Your task to perform on an android device: Open calendar and show me the third week of next month Image 0: 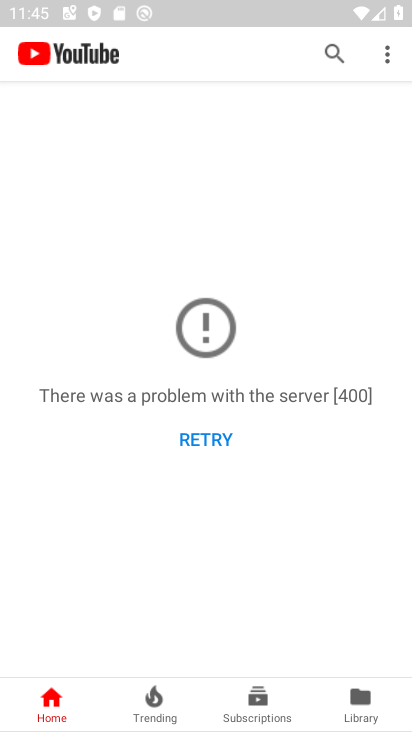
Step 0: press home button
Your task to perform on an android device: Open calendar and show me the third week of next month Image 1: 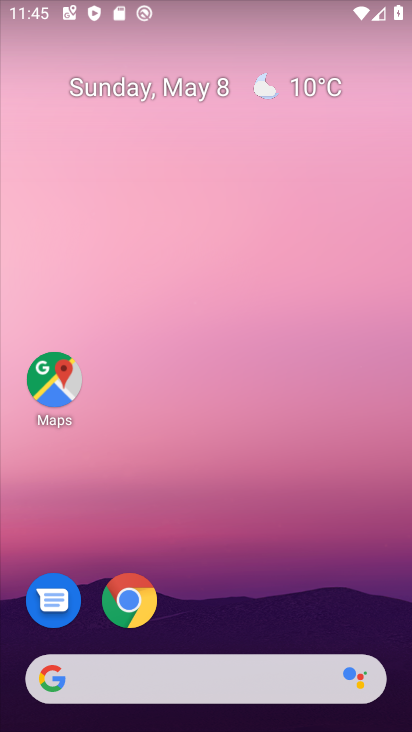
Step 1: drag from (259, 337) to (264, 124)
Your task to perform on an android device: Open calendar and show me the third week of next month Image 2: 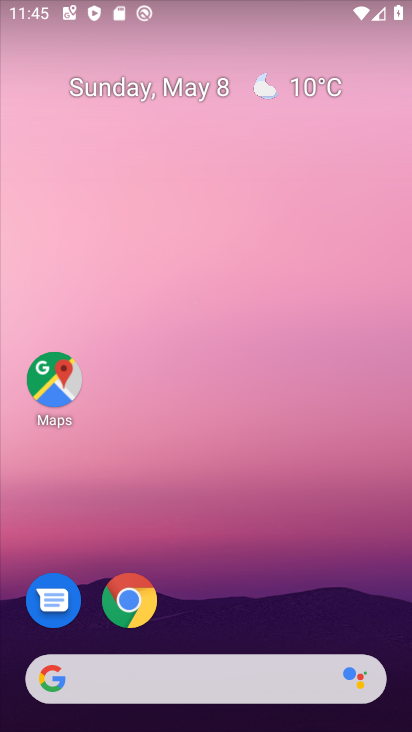
Step 2: drag from (179, 590) to (183, 128)
Your task to perform on an android device: Open calendar and show me the third week of next month Image 3: 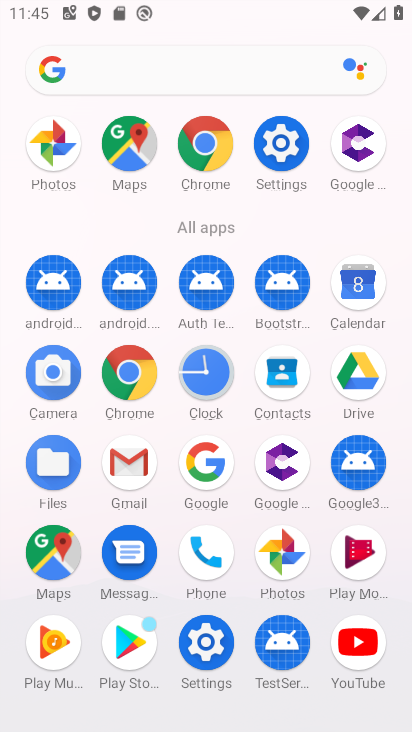
Step 3: click (354, 283)
Your task to perform on an android device: Open calendar and show me the third week of next month Image 4: 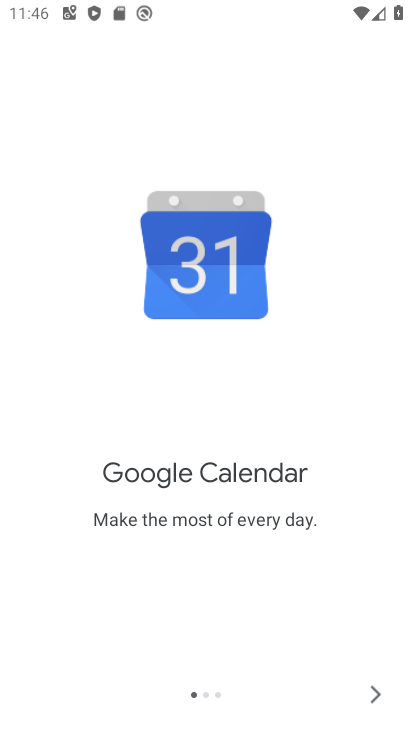
Step 4: click (382, 695)
Your task to perform on an android device: Open calendar and show me the third week of next month Image 5: 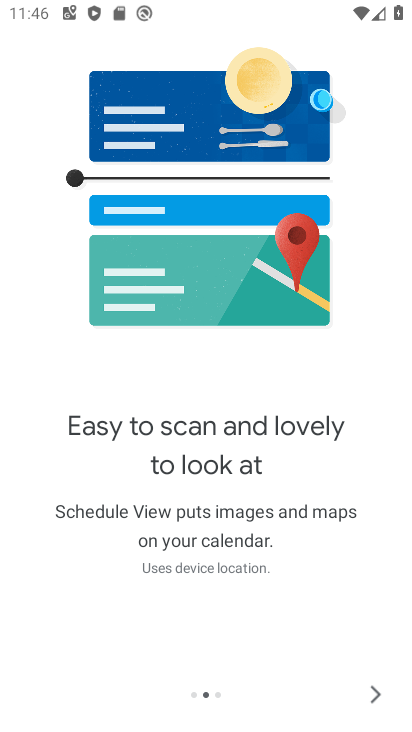
Step 5: click (382, 695)
Your task to perform on an android device: Open calendar and show me the third week of next month Image 6: 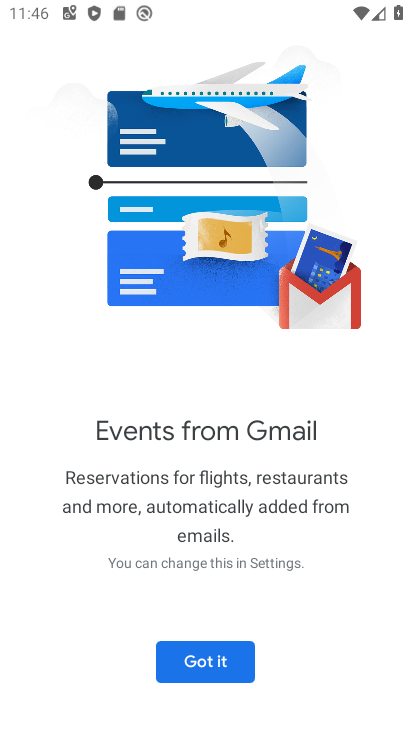
Step 6: click (191, 664)
Your task to perform on an android device: Open calendar and show me the third week of next month Image 7: 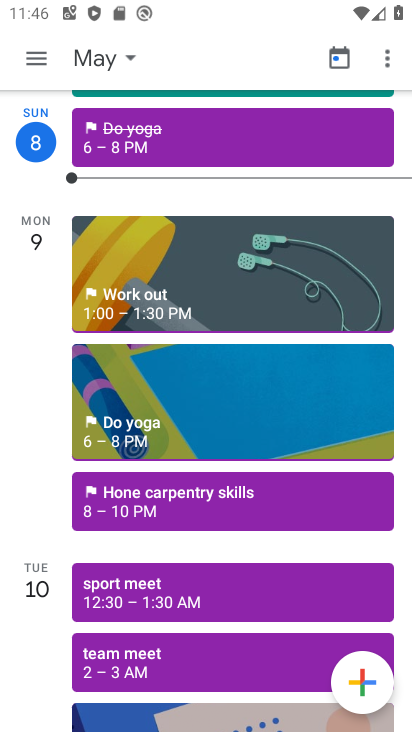
Step 7: click (118, 58)
Your task to perform on an android device: Open calendar and show me the third week of next month Image 8: 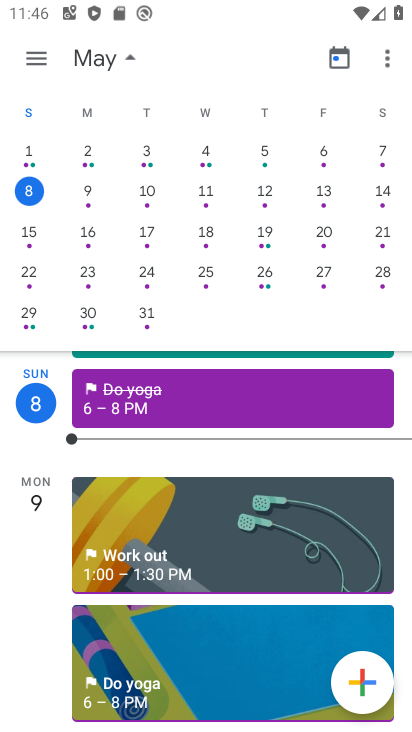
Step 8: drag from (381, 222) to (119, 138)
Your task to perform on an android device: Open calendar and show me the third week of next month Image 9: 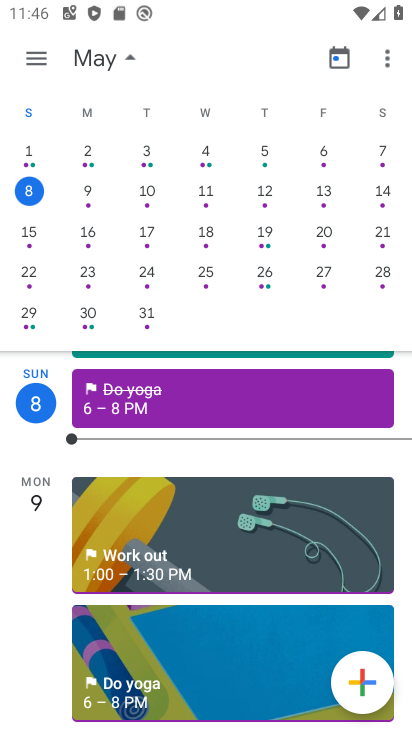
Step 9: click (272, 230)
Your task to perform on an android device: Open calendar and show me the third week of next month Image 10: 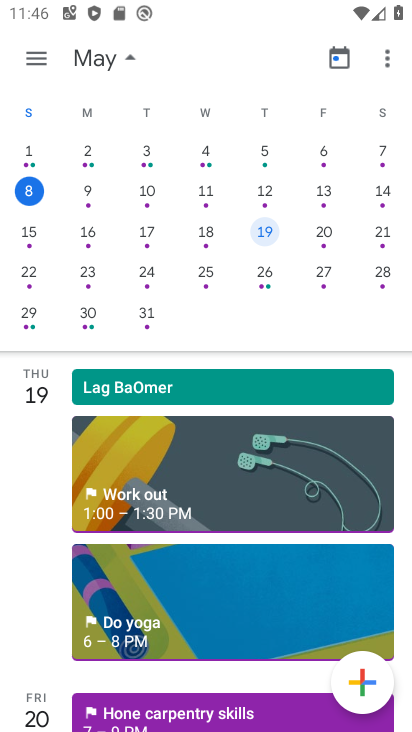
Step 10: click (29, 65)
Your task to perform on an android device: Open calendar and show me the third week of next month Image 11: 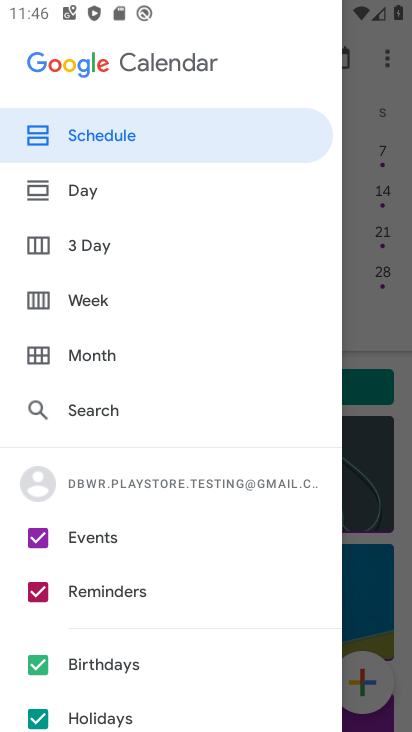
Step 11: click (99, 295)
Your task to perform on an android device: Open calendar and show me the third week of next month Image 12: 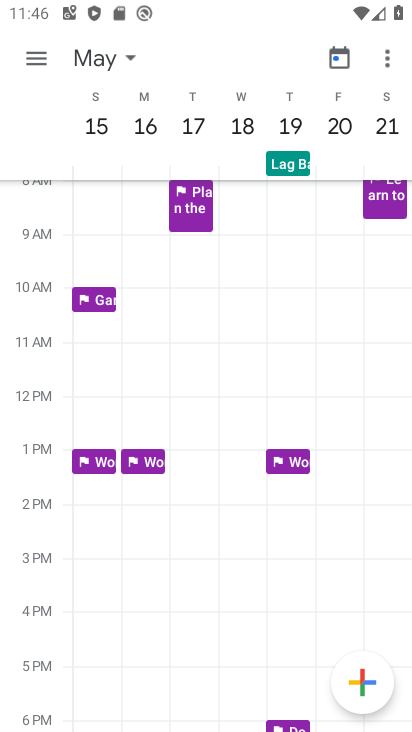
Step 12: task complete